Your task to perform on an android device: delete location history Image 0: 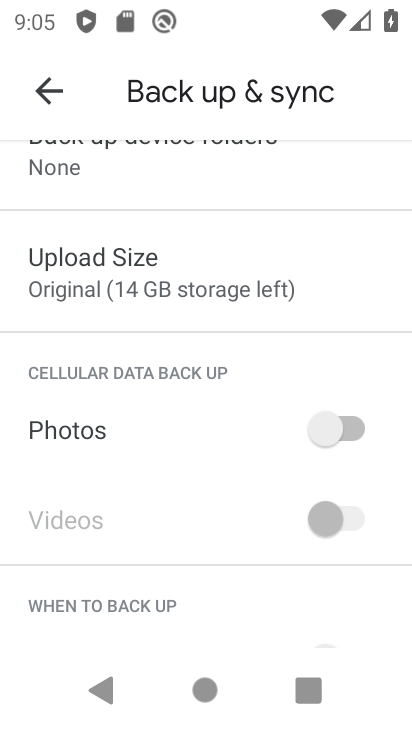
Step 0: press home button
Your task to perform on an android device: delete location history Image 1: 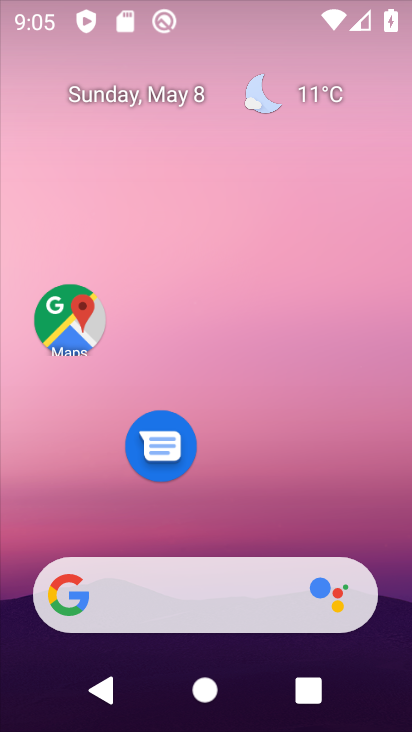
Step 1: drag from (269, 509) to (336, 1)
Your task to perform on an android device: delete location history Image 2: 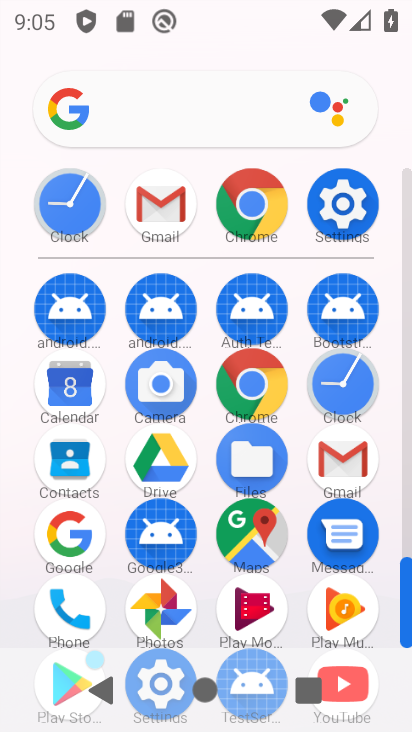
Step 2: drag from (407, 596) to (400, 709)
Your task to perform on an android device: delete location history Image 3: 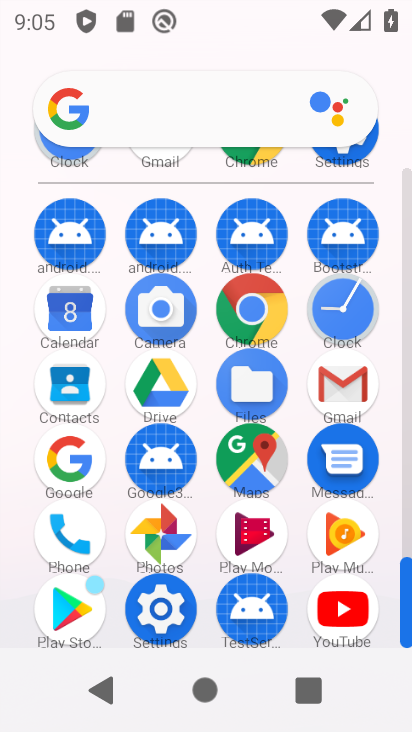
Step 3: click (252, 456)
Your task to perform on an android device: delete location history Image 4: 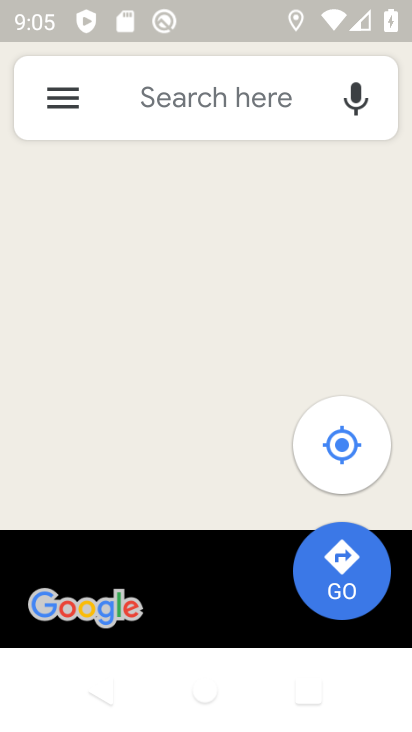
Step 4: click (57, 90)
Your task to perform on an android device: delete location history Image 5: 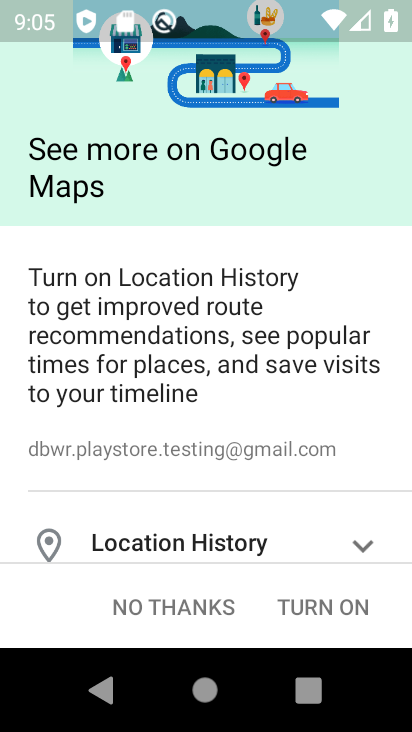
Step 5: drag from (318, 553) to (314, 94)
Your task to perform on an android device: delete location history Image 6: 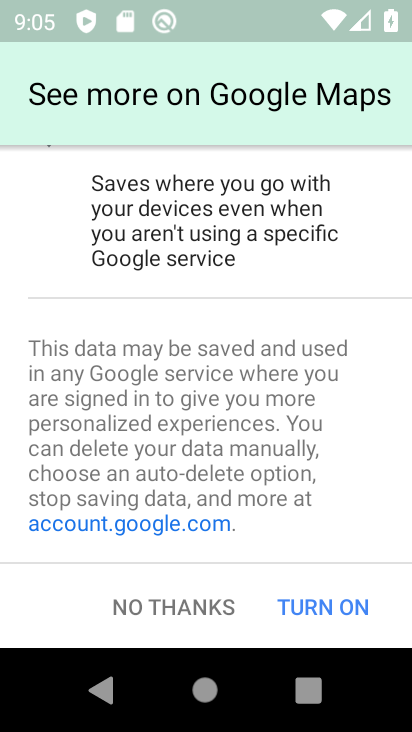
Step 6: click (164, 605)
Your task to perform on an android device: delete location history Image 7: 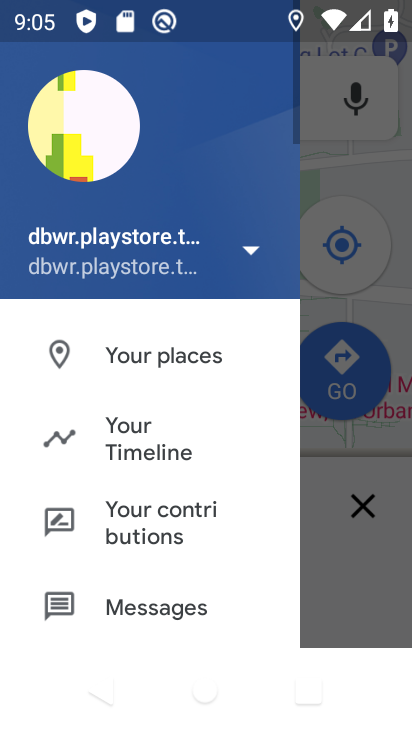
Step 7: drag from (178, 376) to (318, 454)
Your task to perform on an android device: delete location history Image 8: 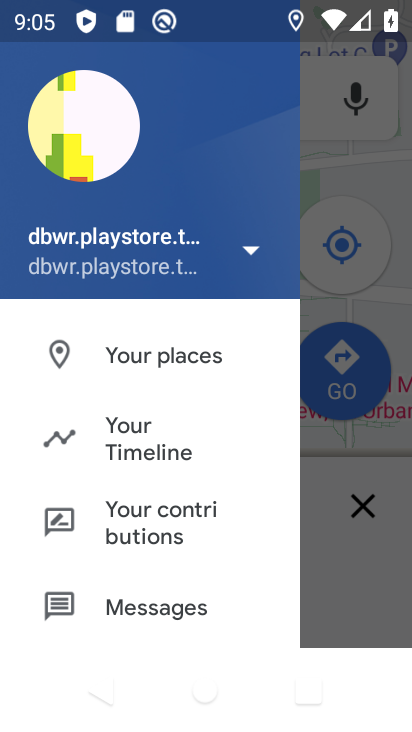
Step 8: click (214, 436)
Your task to perform on an android device: delete location history Image 9: 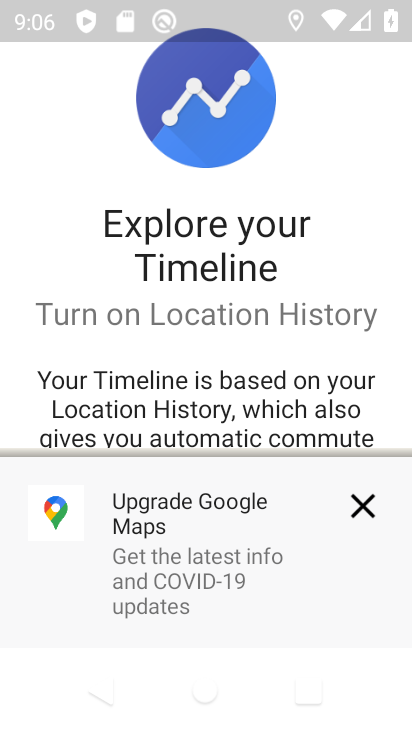
Step 9: click (362, 515)
Your task to perform on an android device: delete location history Image 10: 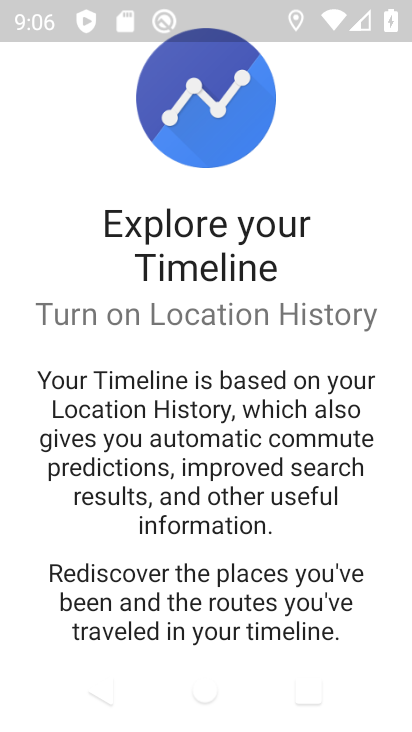
Step 10: drag from (313, 583) to (304, 201)
Your task to perform on an android device: delete location history Image 11: 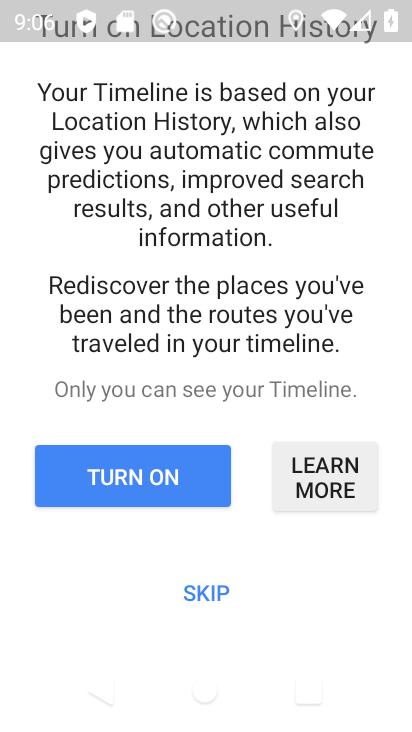
Step 11: click (114, 464)
Your task to perform on an android device: delete location history Image 12: 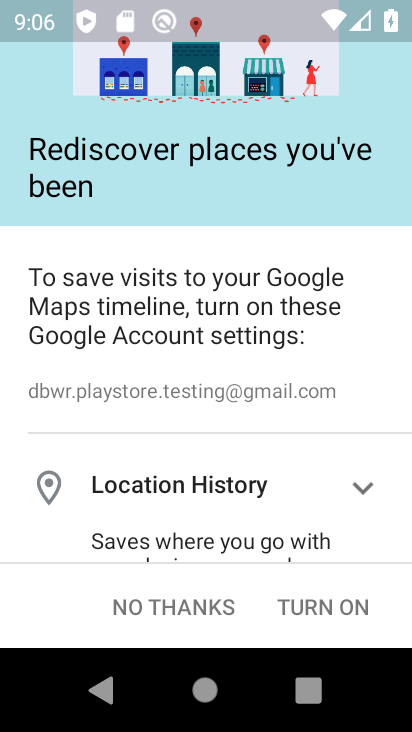
Step 12: click (212, 593)
Your task to perform on an android device: delete location history Image 13: 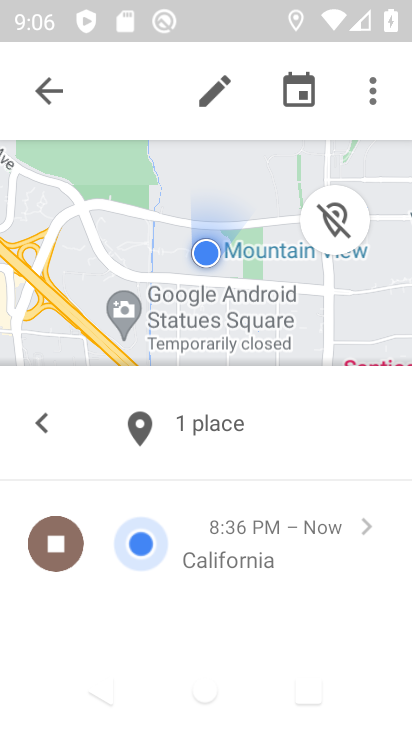
Step 13: click (381, 89)
Your task to perform on an android device: delete location history Image 14: 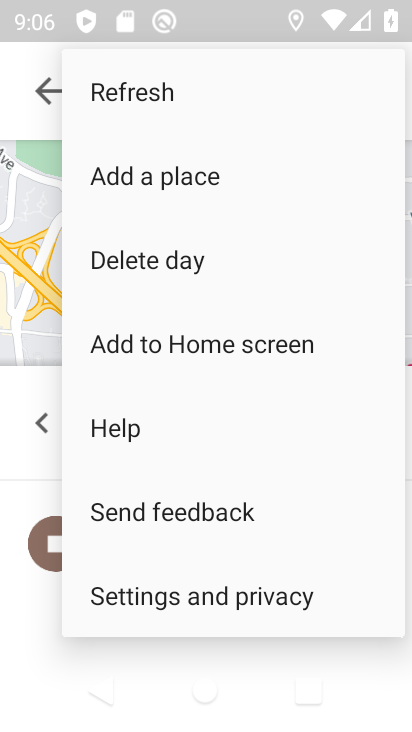
Step 14: click (176, 601)
Your task to perform on an android device: delete location history Image 15: 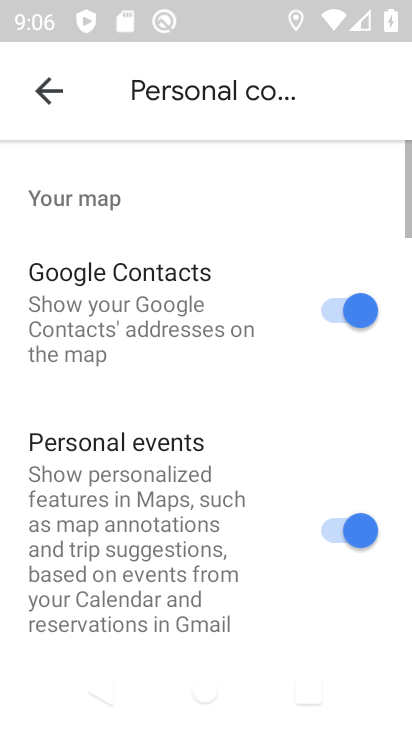
Step 15: drag from (170, 559) to (175, 152)
Your task to perform on an android device: delete location history Image 16: 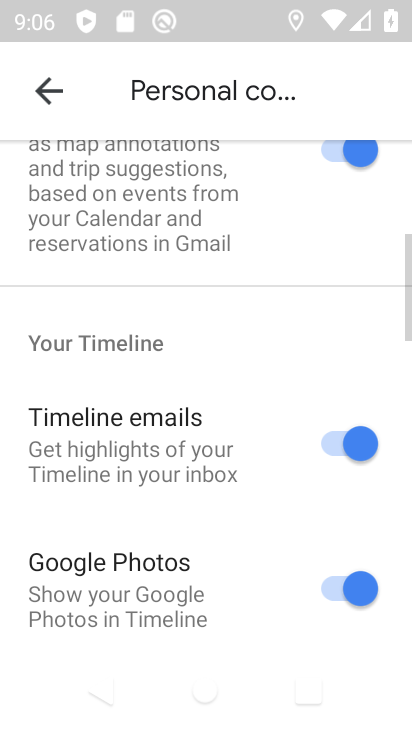
Step 16: drag from (303, 564) to (237, 239)
Your task to perform on an android device: delete location history Image 17: 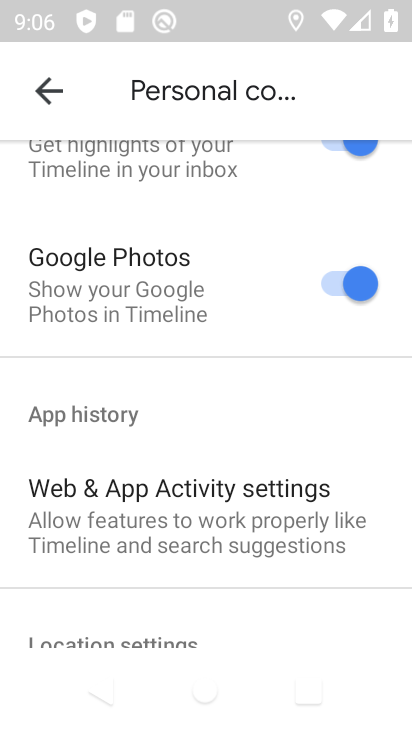
Step 17: drag from (192, 639) to (191, 302)
Your task to perform on an android device: delete location history Image 18: 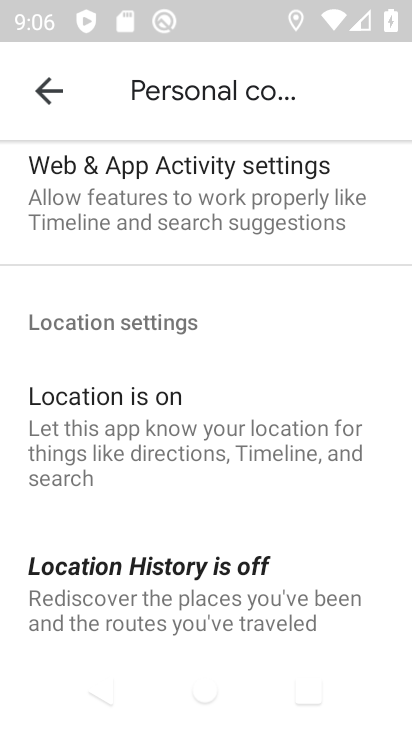
Step 18: drag from (224, 538) to (214, 308)
Your task to perform on an android device: delete location history Image 19: 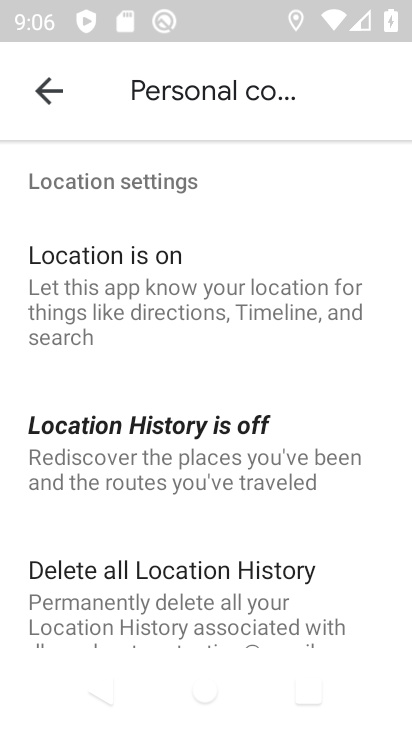
Step 19: drag from (205, 582) to (192, 356)
Your task to perform on an android device: delete location history Image 20: 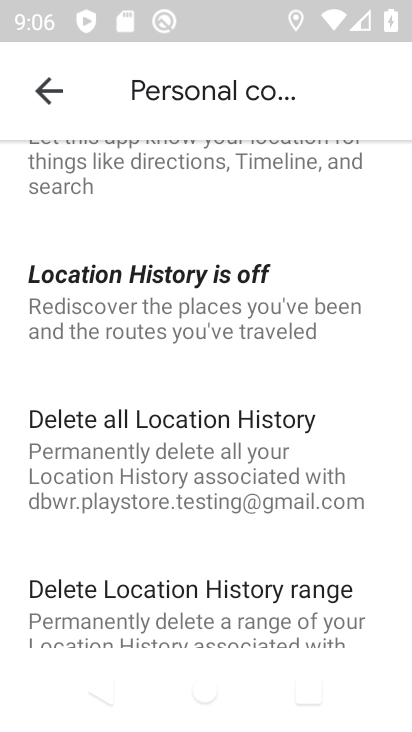
Step 20: click (204, 603)
Your task to perform on an android device: delete location history Image 21: 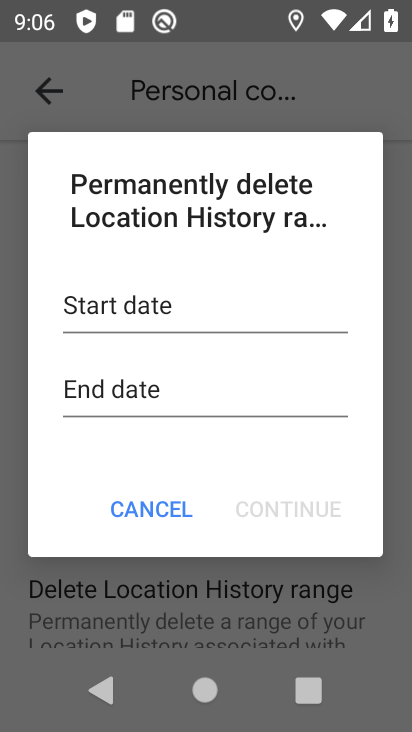
Step 21: click (130, 508)
Your task to perform on an android device: delete location history Image 22: 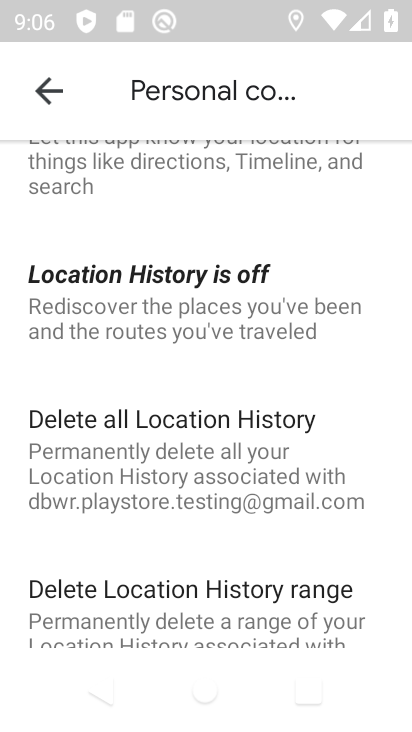
Step 22: click (132, 471)
Your task to perform on an android device: delete location history Image 23: 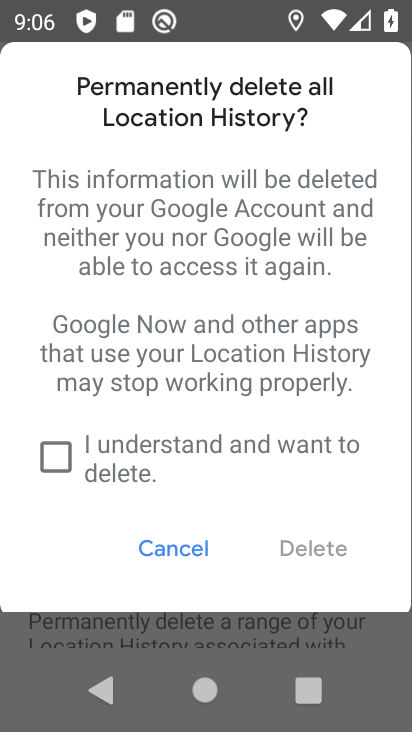
Step 23: click (207, 472)
Your task to perform on an android device: delete location history Image 24: 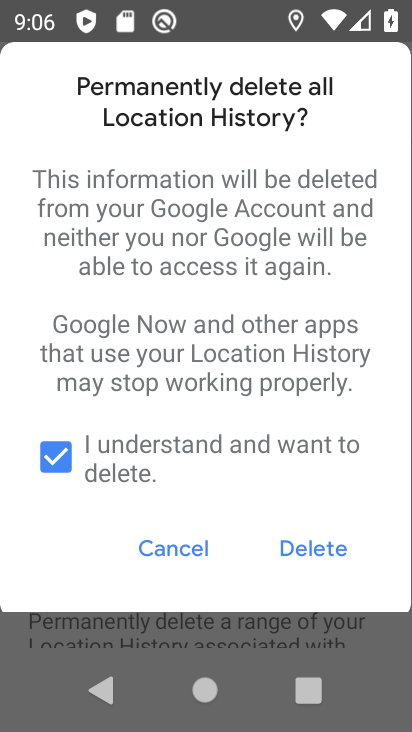
Step 24: click (304, 552)
Your task to perform on an android device: delete location history Image 25: 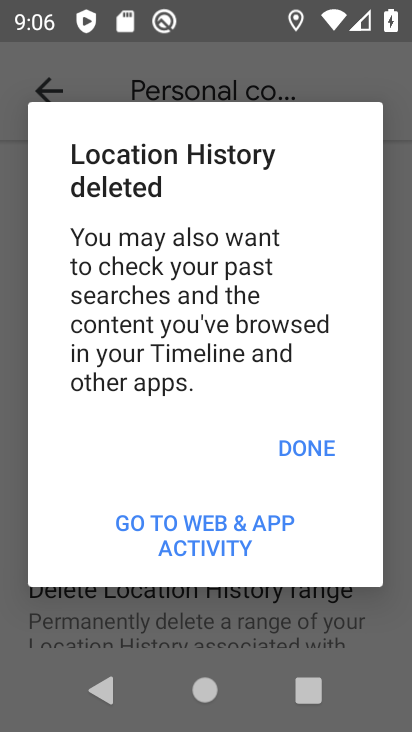
Step 25: click (297, 447)
Your task to perform on an android device: delete location history Image 26: 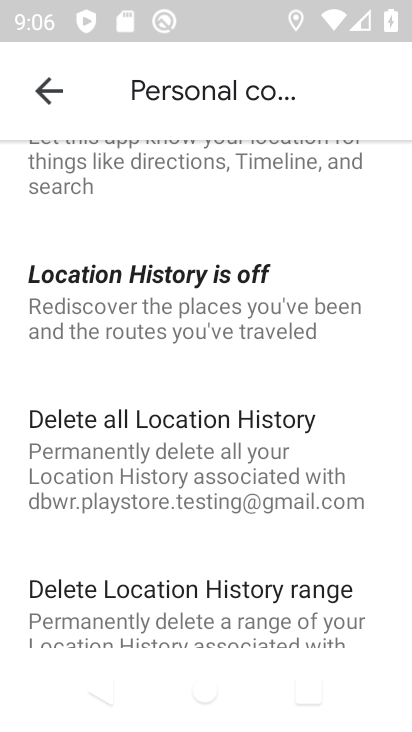
Step 26: task complete